Your task to perform on an android device: Add razer naga to the cart on ebay Image 0: 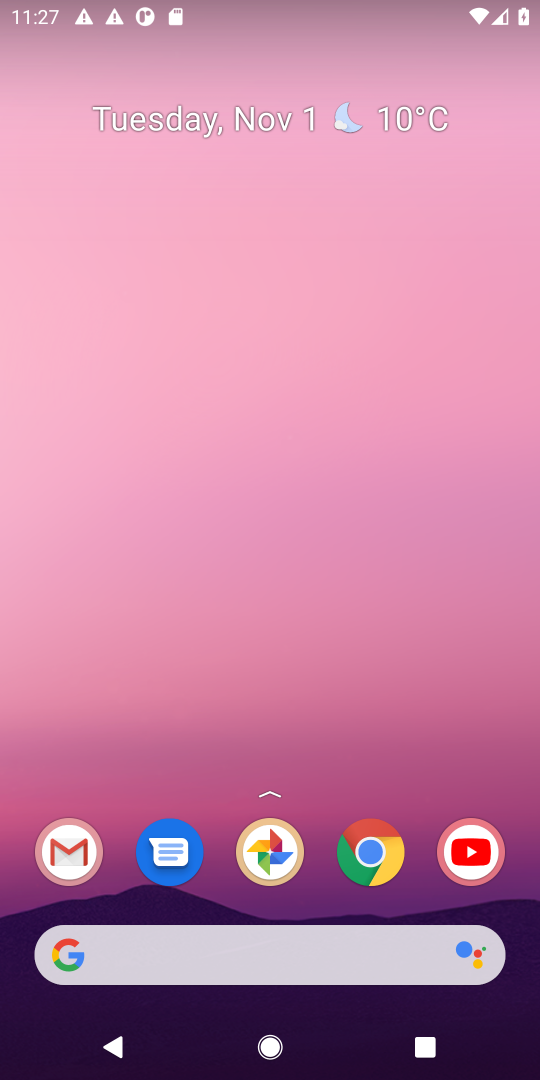
Step 0: click (79, 953)
Your task to perform on an android device: Add razer naga to the cart on ebay Image 1: 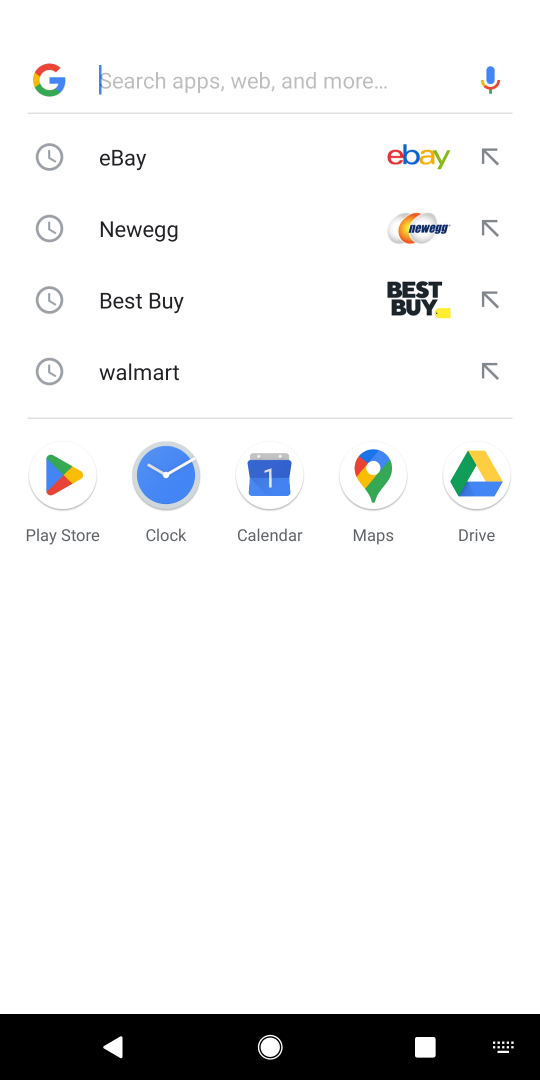
Step 1: click (409, 146)
Your task to perform on an android device: Add razer naga to the cart on ebay Image 2: 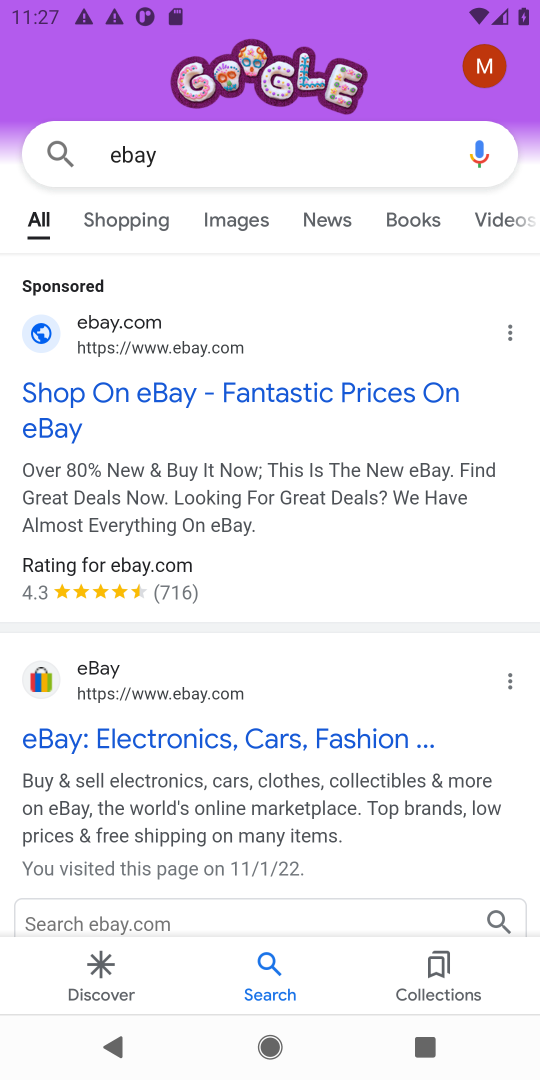
Step 2: click (133, 731)
Your task to perform on an android device: Add razer naga to the cart on ebay Image 3: 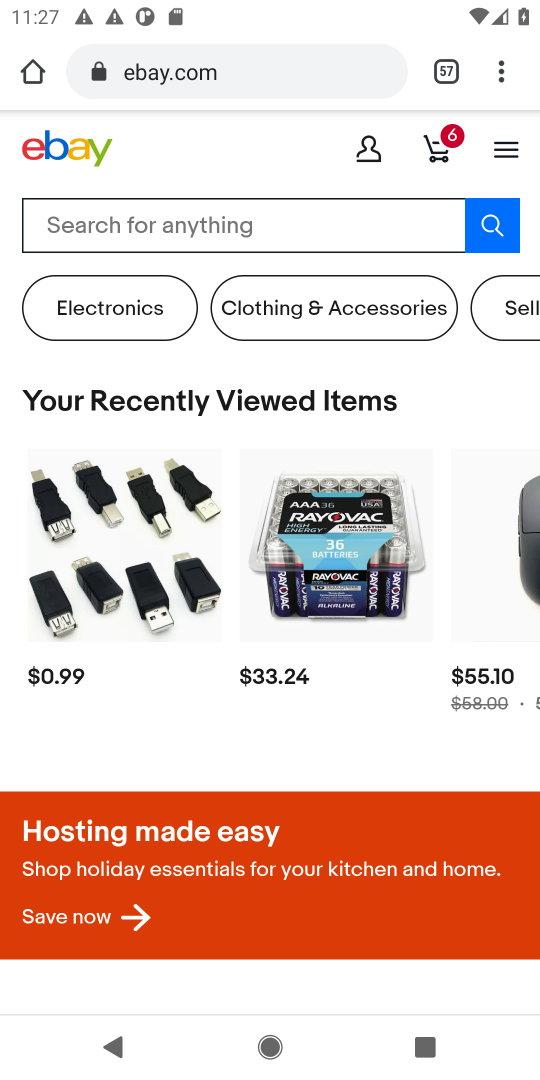
Step 3: click (226, 226)
Your task to perform on an android device: Add razer naga to the cart on ebay Image 4: 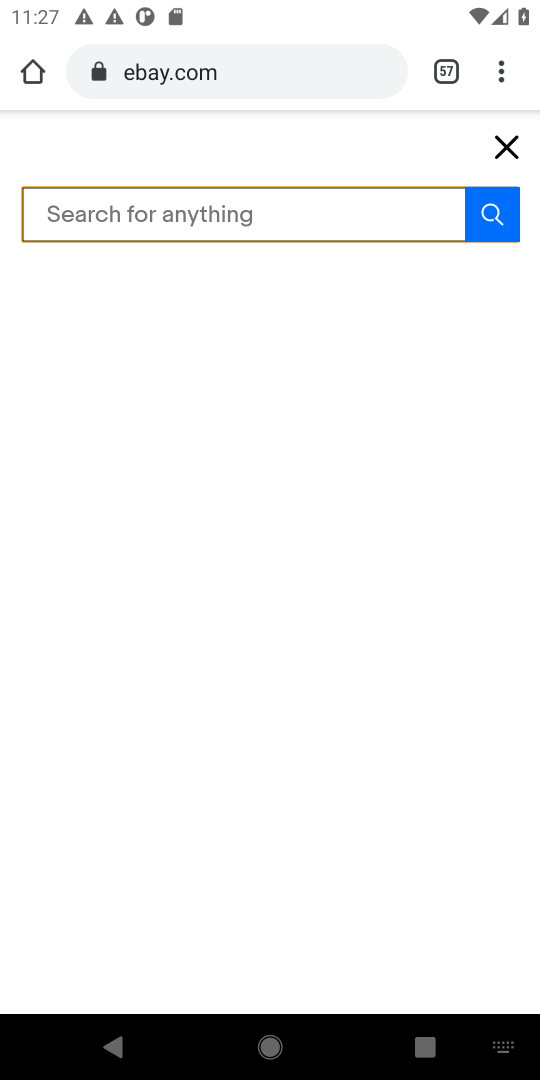
Step 4: type "razer naga"
Your task to perform on an android device: Add razer naga to the cart on ebay Image 5: 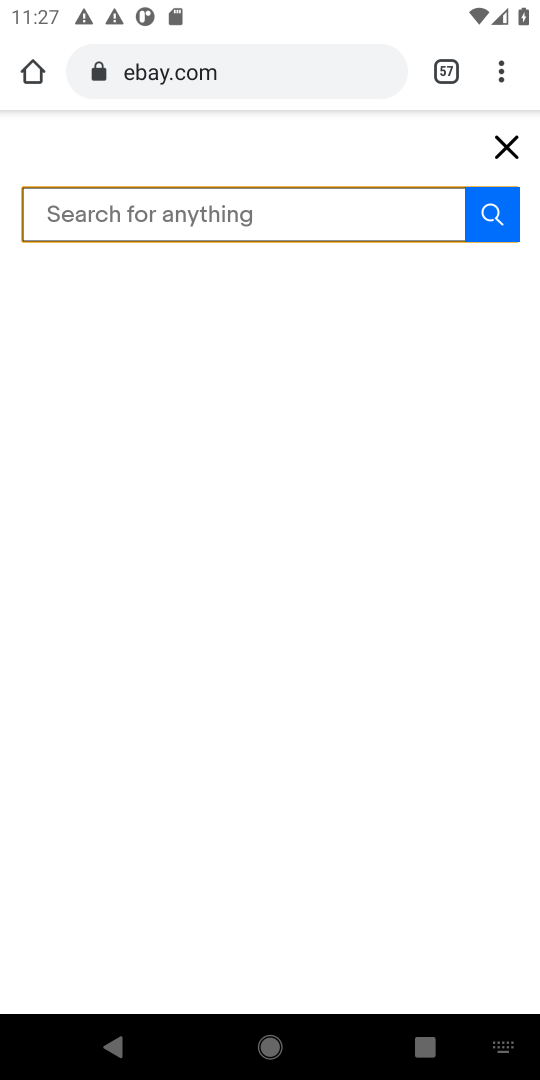
Step 5: click (217, 209)
Your task to perform on an android device: Add razer naga to the cart on ebay Image 6: 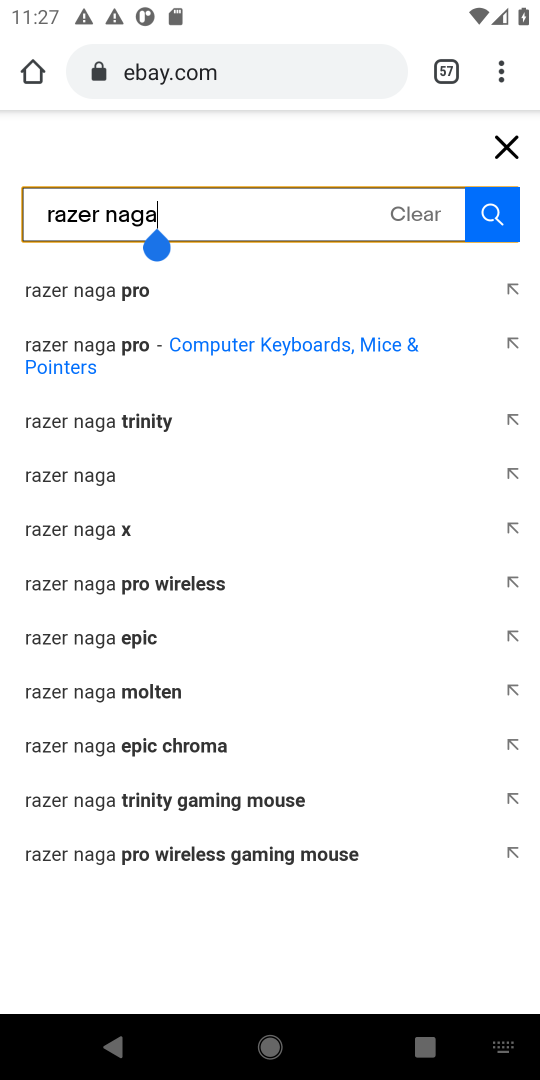
Step 6: press enter
Your task to perform on an android device: Add razer naga to the cart on ebay Image 7: 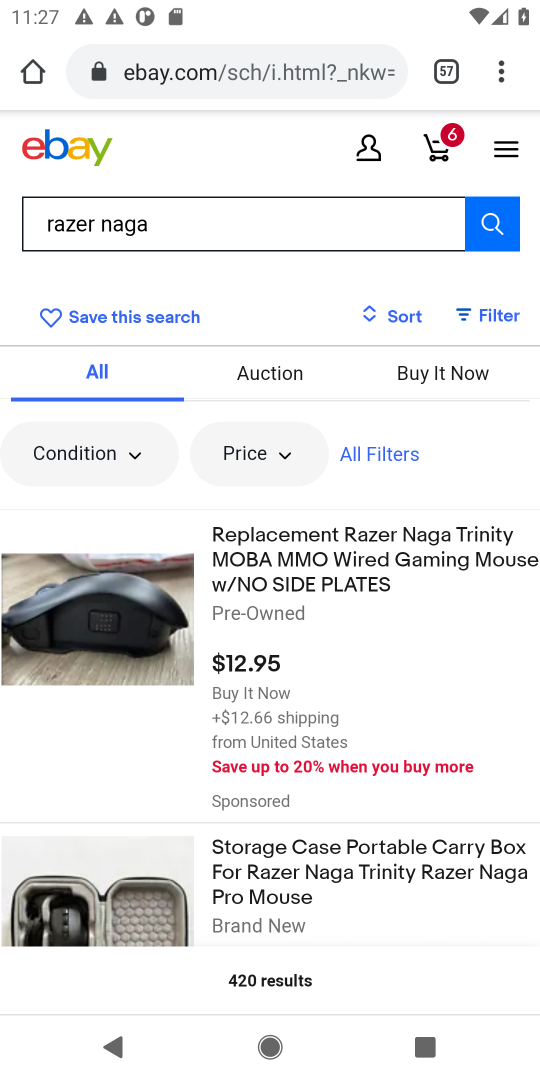
Step 7: drag from (380, 855) to (341, 434)
Your task to perform on an android device: Add razer naga to the cart on ebay Image 8: 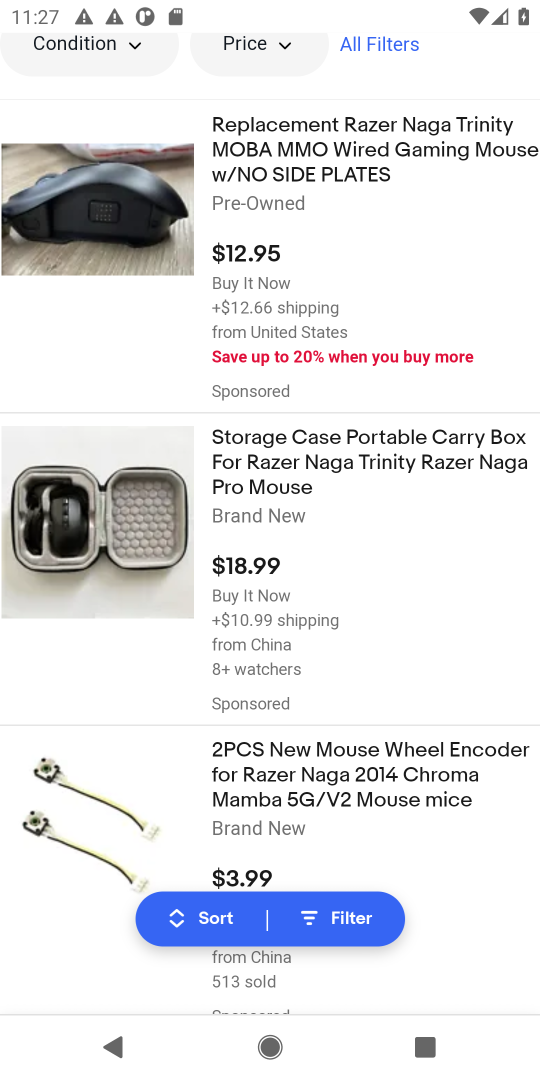
Step 8: drag from (422, 948) to (342, 480)
Your task to perform on an android device: Add razer naga to the cart on ebay Image 9: 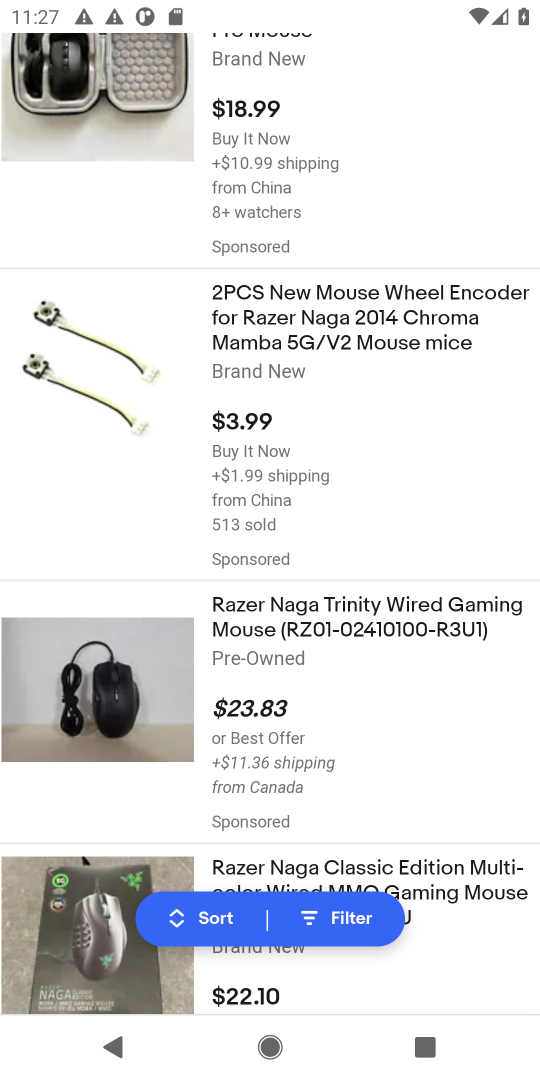
Step 9: click (127, 703)
Your task to perform on an android device: Add razer naga to the cart on ebay Image 10: 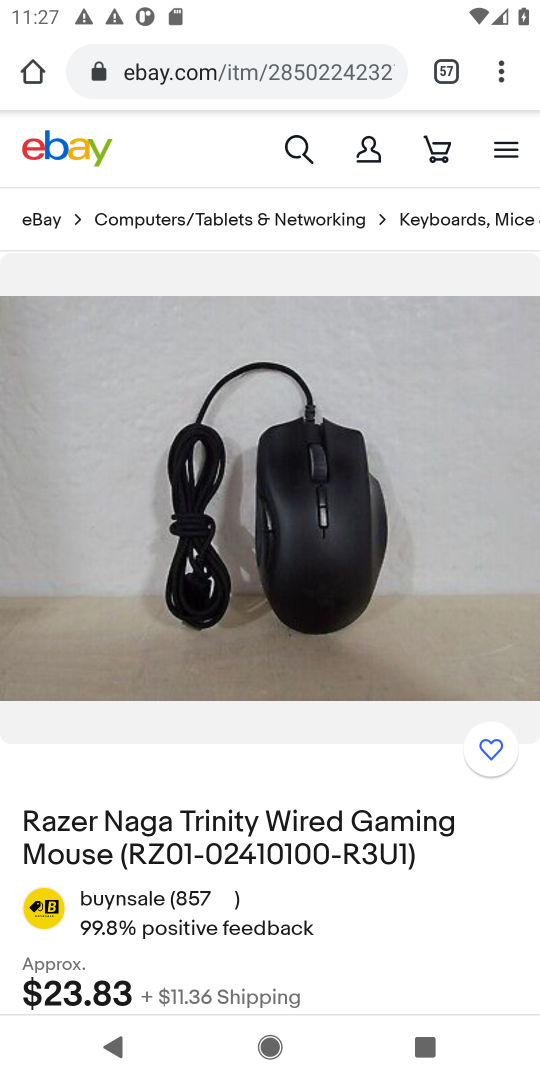
Step 10: drag from (411, 826) to (419, 374)
Your task to perform on an android device: Add razer naga to the cart on ebay Image 11: 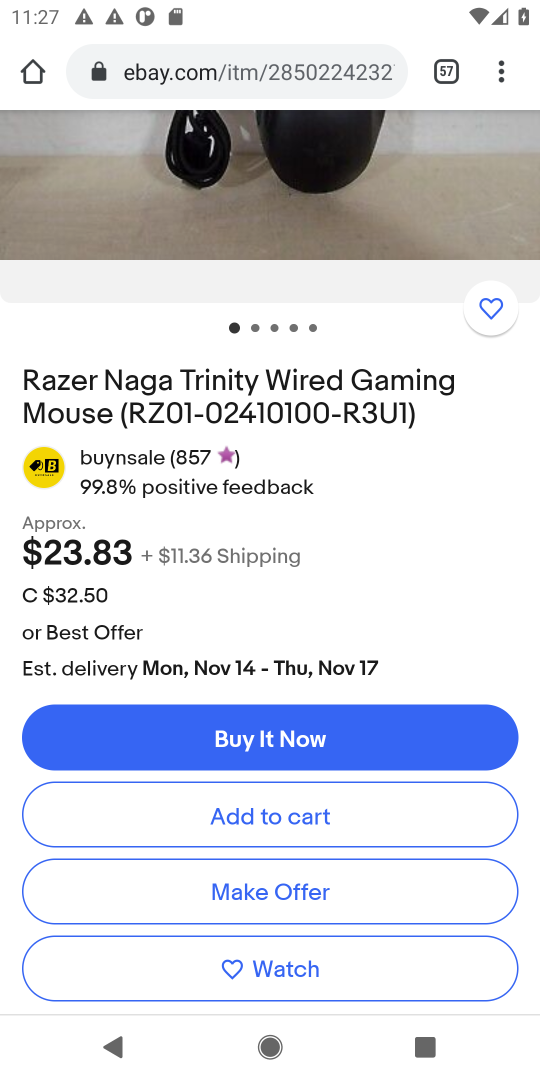
Step 11: click (247, 811)
Your task to perform on an android device: Add razer naga to the cart on ebay Image 12: 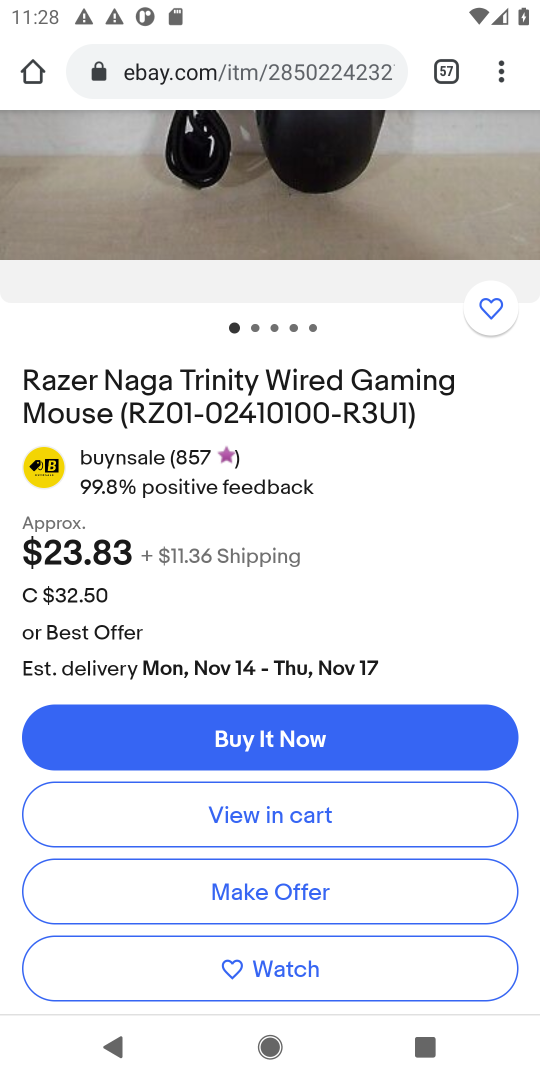
Step 12: task complete